Your task to perform on an android device: Open Yahoo.com Image 0: 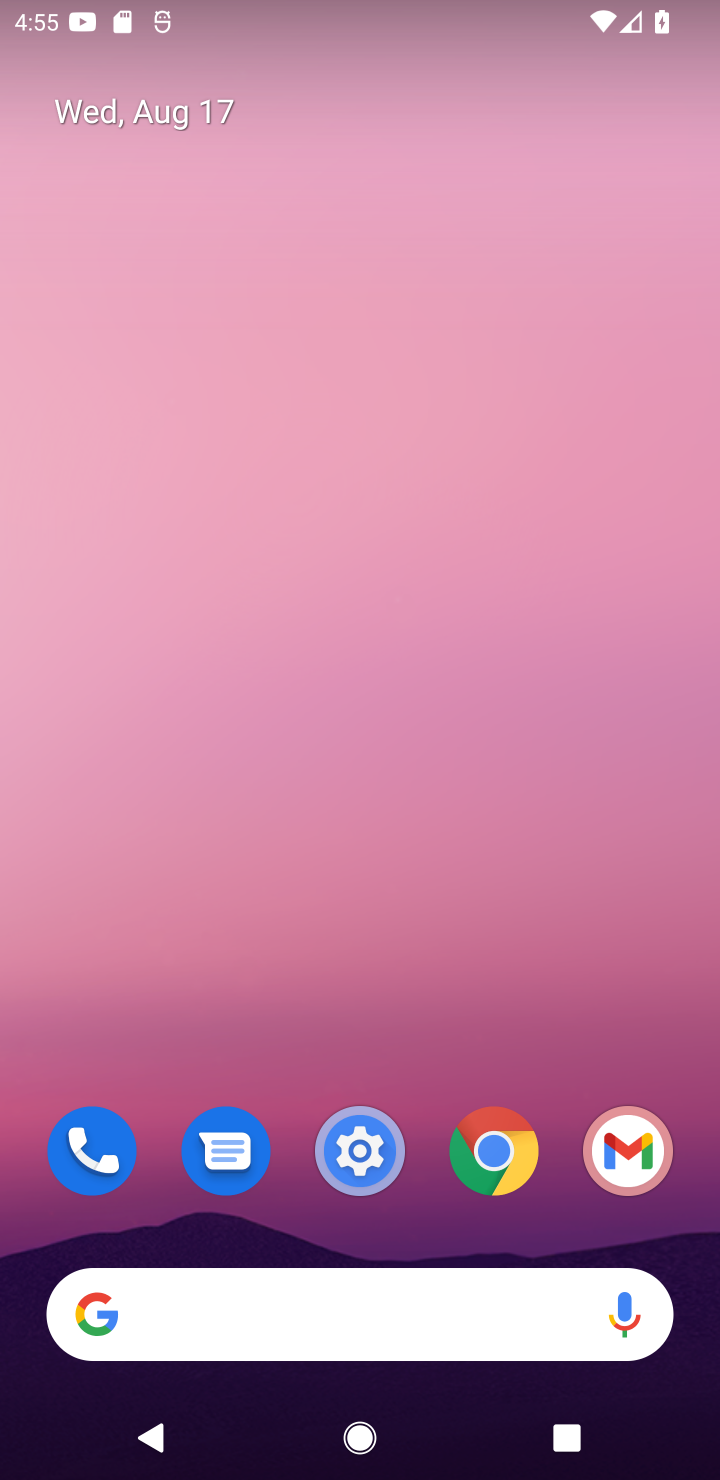
Step 0: click (361, 1162)
Your task to perform on an android device: Open Yahoo.com Image 1: 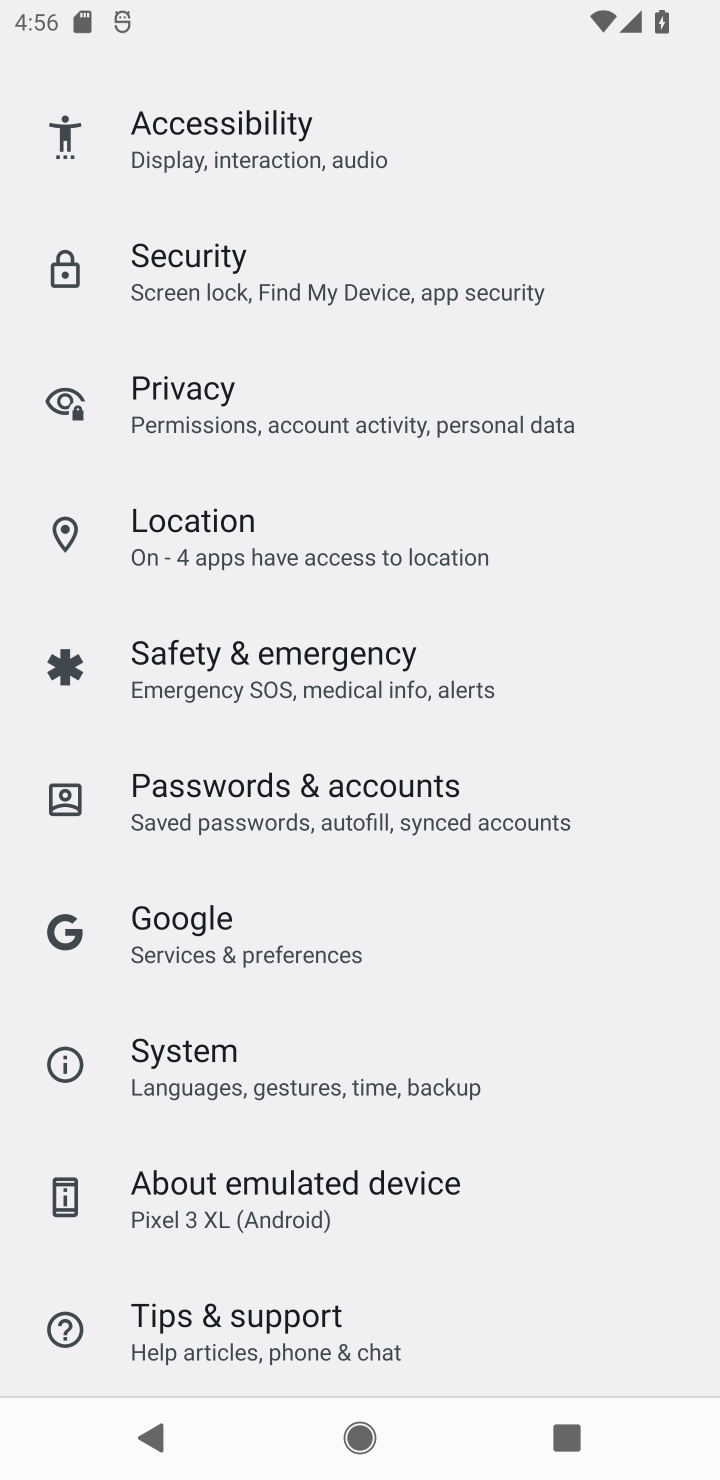
Step 1: press home button
Your task to perform on an android device: Open Yahoo.com Image 2: 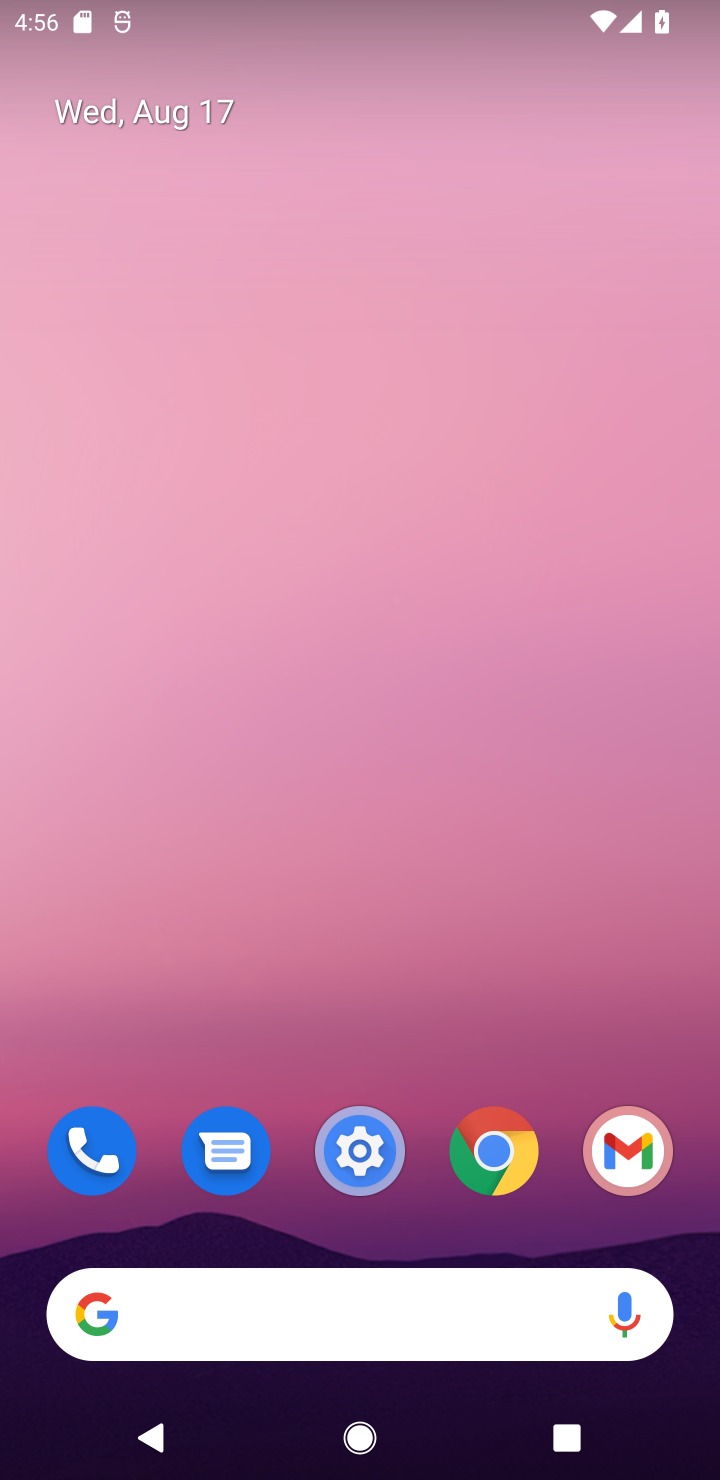
Step 2: click (468, 1155)
Your task to perform on an android device: Open Yahoo.com Image 3: 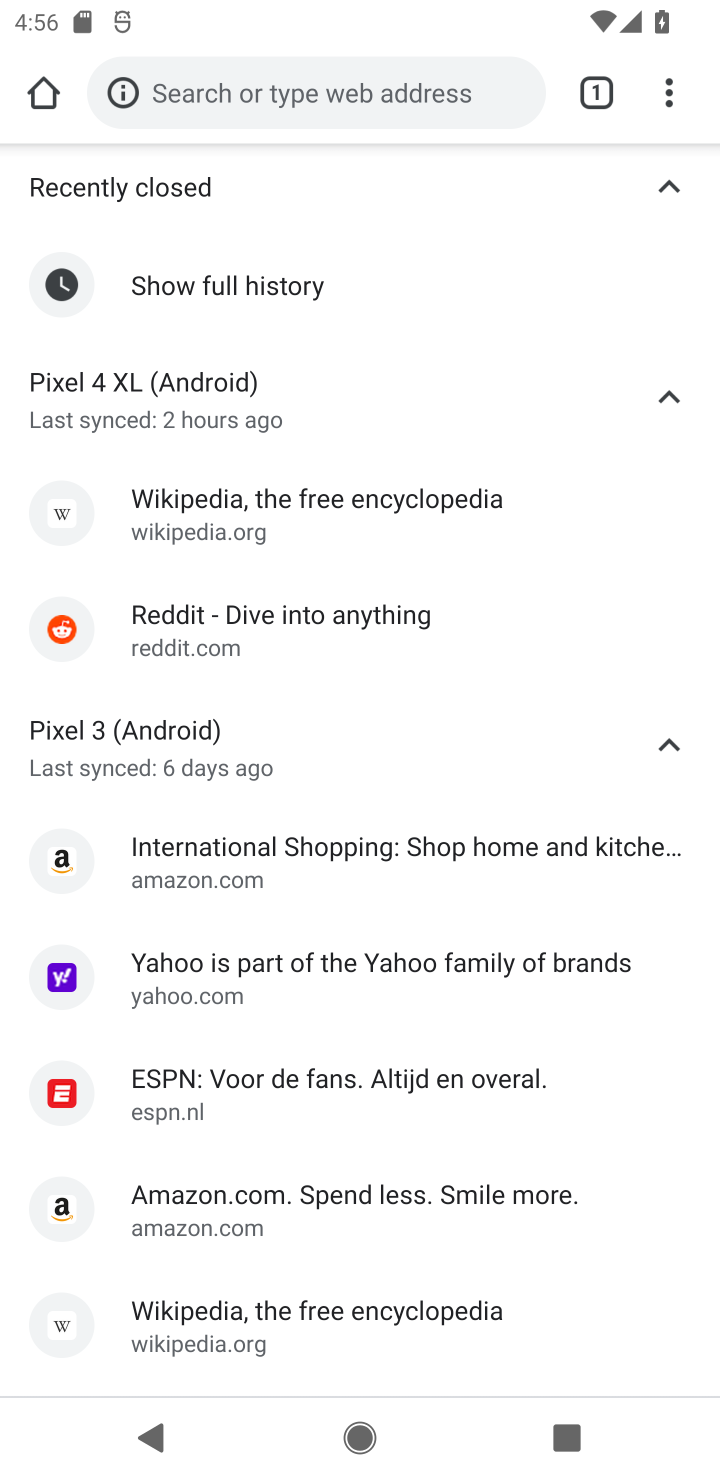
Step 3: click (223, 951)
Your task to perform on an android device: Open Yahoo.com Image 4: 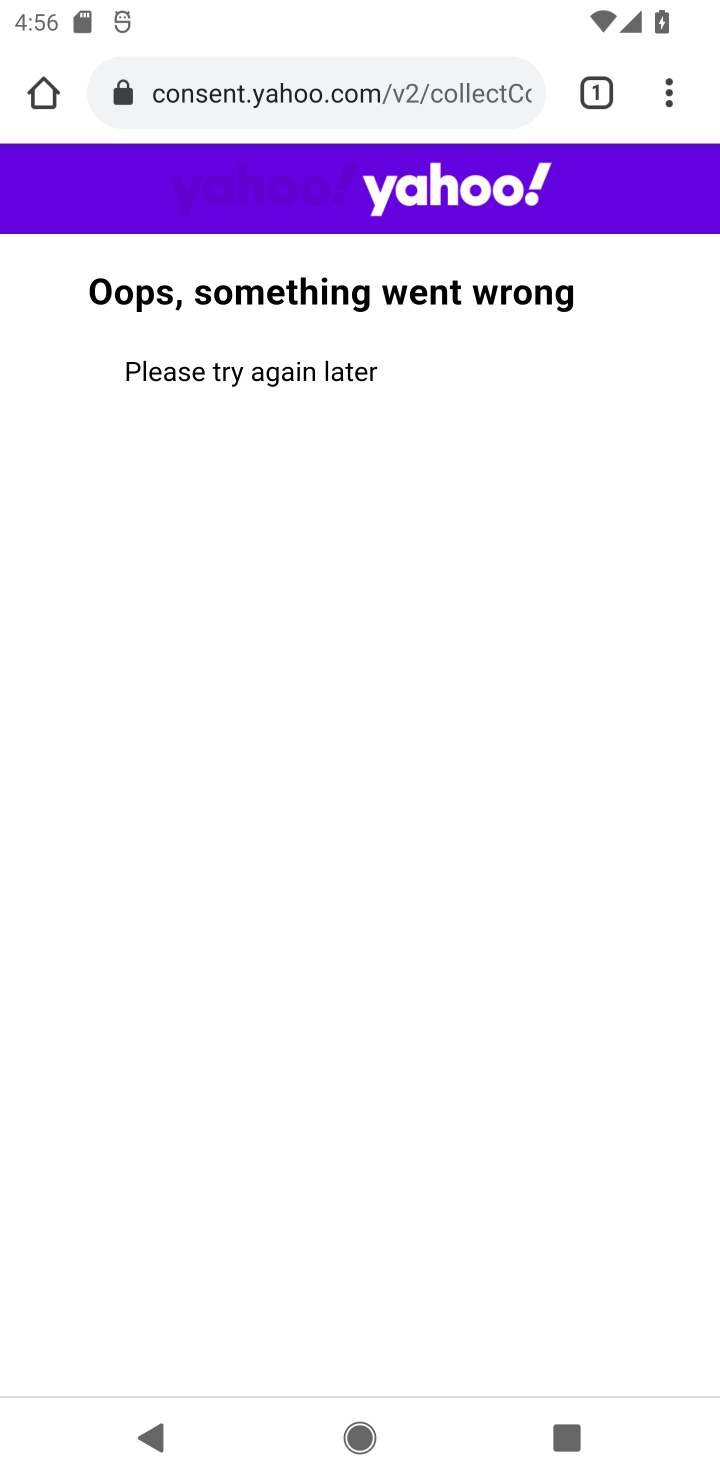
Step 4: task complete